Your task to perform on an android device: turn off notifications in google photos Image 0: 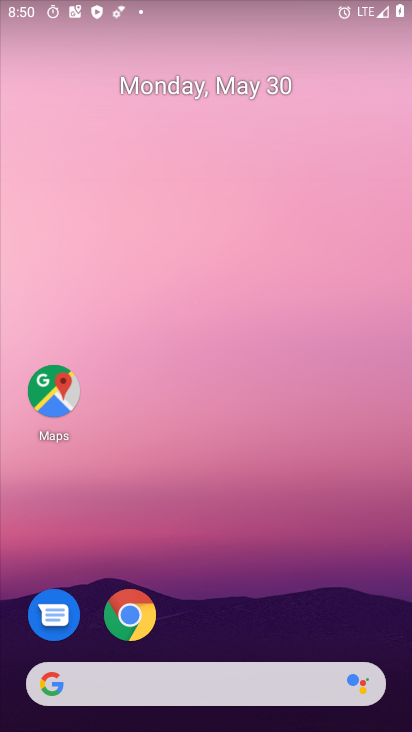
Step 0: drag from (270, 591) to (286, 115)
Your task to perform on an android device: turn off notifications in google photos Image 1: 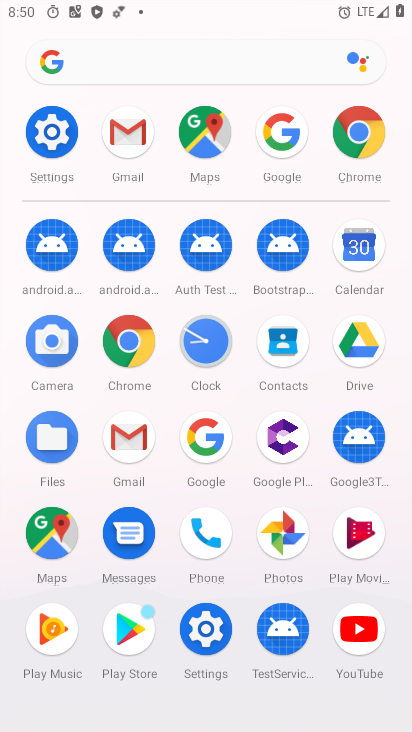
Step 1: click (298, 540)
Your task to perform on an android device: turn off notifications in google photos Image 2: 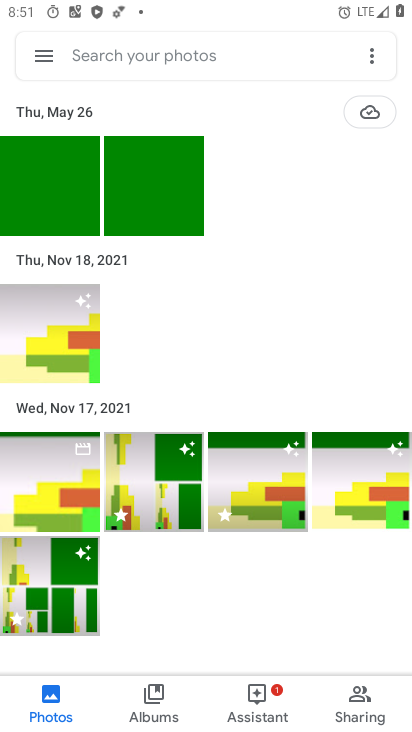
Step 2: click (36, 61)
Your task to perform on an android device: turn off notifications in google photos Image 3: 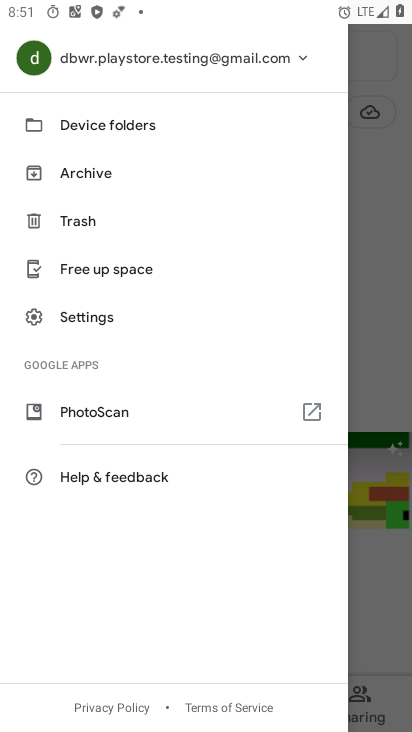
Step 3: click (61, 317)
Your task to perform on an android device: turn off notifications in google photos Image 4: 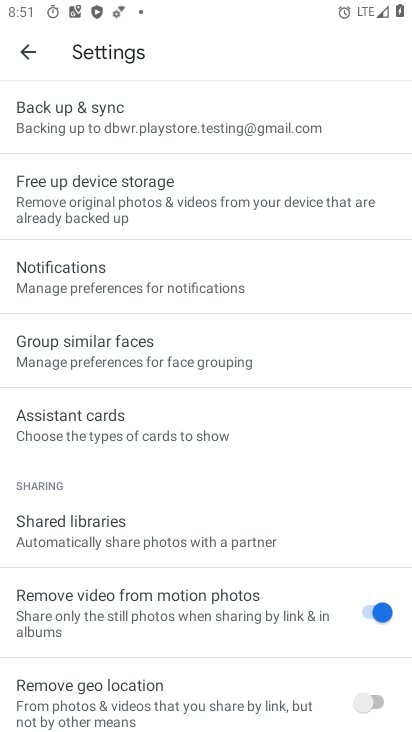
Step 4: click (106, 282)
Your task to perform on an android device: turn off notifications in google photos Image 5: 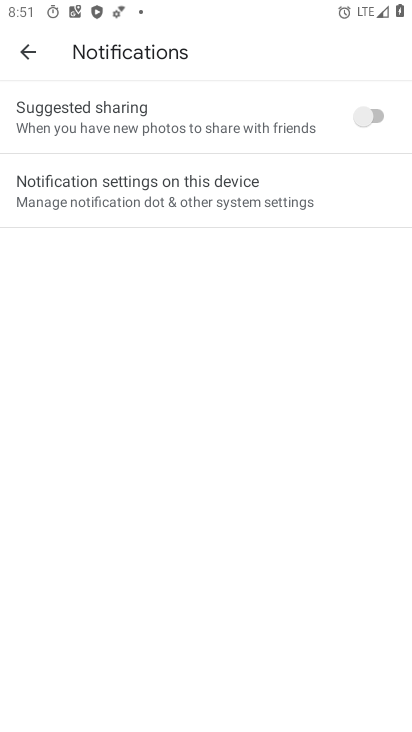
Step 5: click (139, 200)
Your task to perform on an android device: turn off notifications in google photos Image 6: 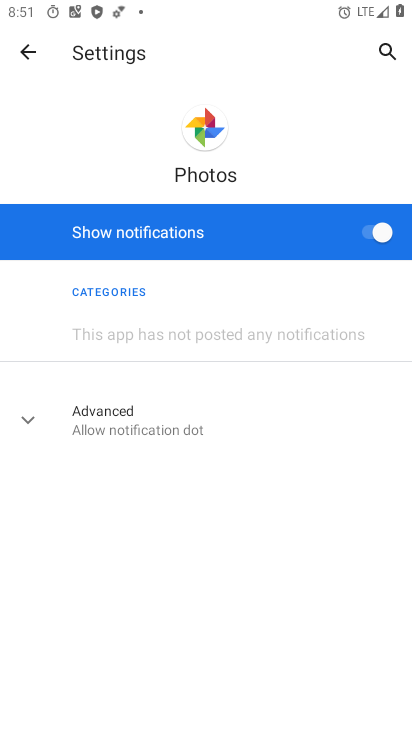
Step 6: click (379, 238)
Your task to perform on an android device: turn off notifications in google photos Image 7: 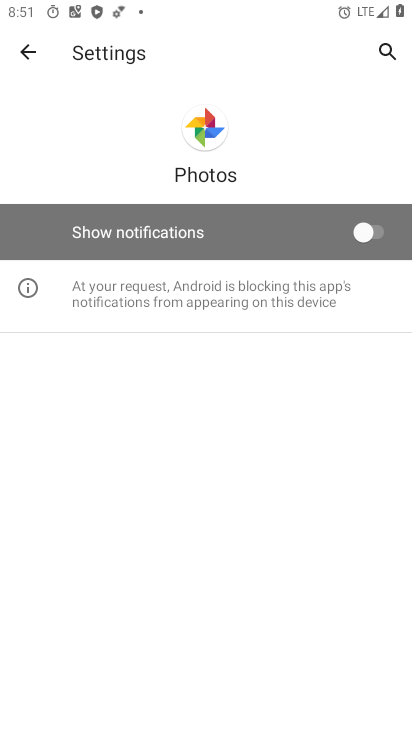
Step 7: task complete